Your task to perform on an android device: uninstall "Duolingo: language lessons" Image 0: 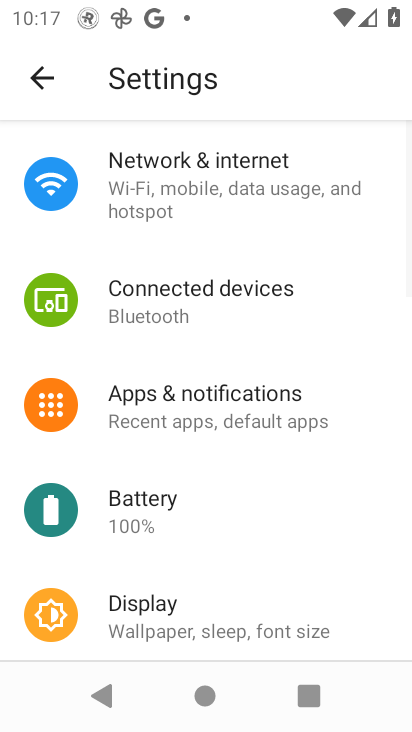
Step 0: click (38, 74)
Your task to perform on an android device: uninstall "Duolingo: language lessons" Image 1: 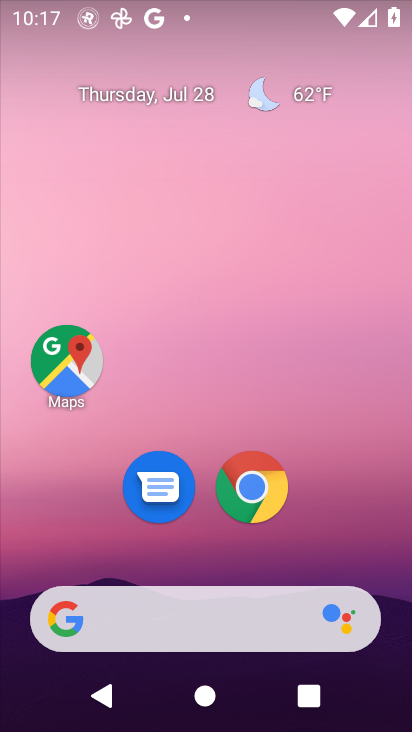
Step 1: click (182, 211)
Your task to perform on an android device: uninstall "Duolingo: language lessons" Image 2: 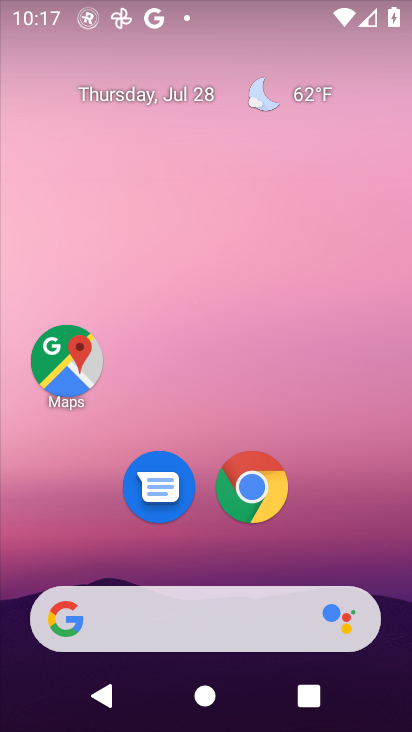
Step 2: drag from (252, 509) to (252, 227)
Your task to perform on an android device: uninstall "Duolingo: language lessons" Image 3: 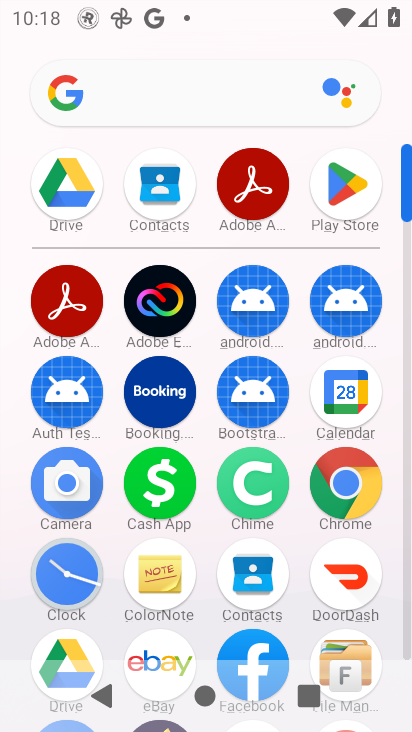
Step 3: click (343, 197)
Your task to perform on an android device: uninstall "Duolingo: language lessons" Image 4: 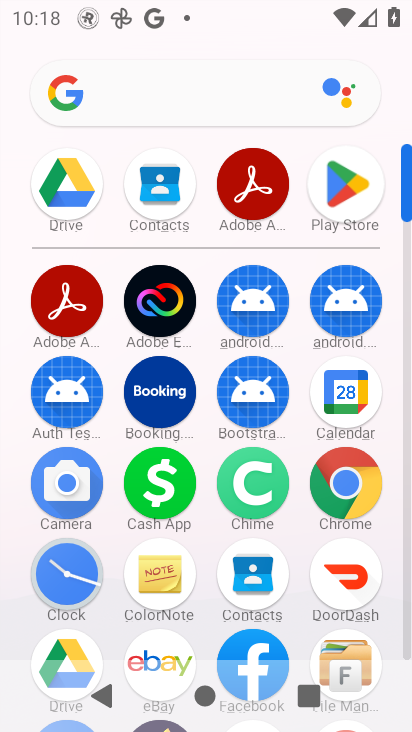
Step 4: click (344, 196)
Your task to perform on an android device: uninstall "Duolingo: language lessons" Image 5: 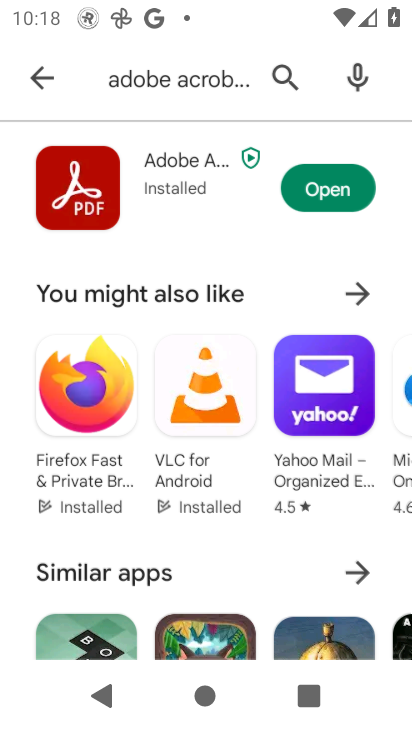
Step 5: click (345, 195)
Your task to perform on an android device: uninstall "Duolingo: language lessons" Image 6: 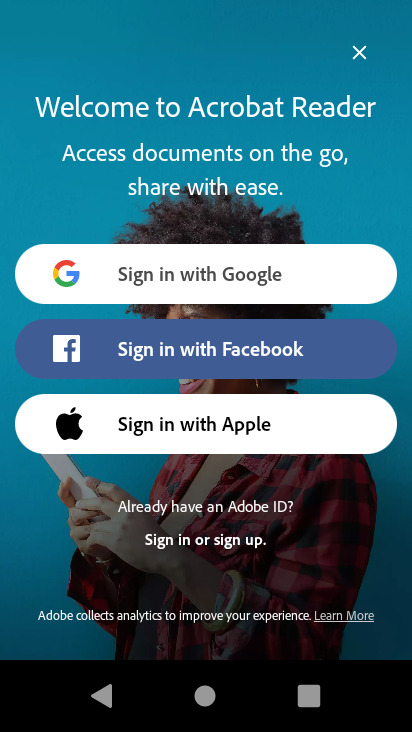
Step 6: press back button
Your task to perform on an android device: uninstall "Duolingo: language lessons" Image 7: 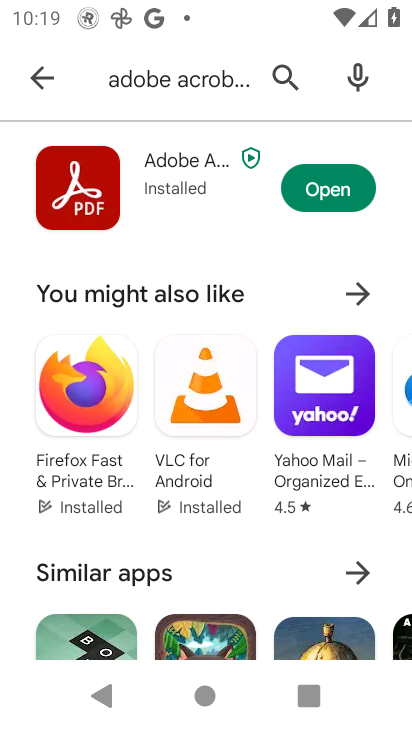
Step 7: click (48, 68)
Your task to perform on an android device: uninstall "Duolingo: language lessons" Image 8: 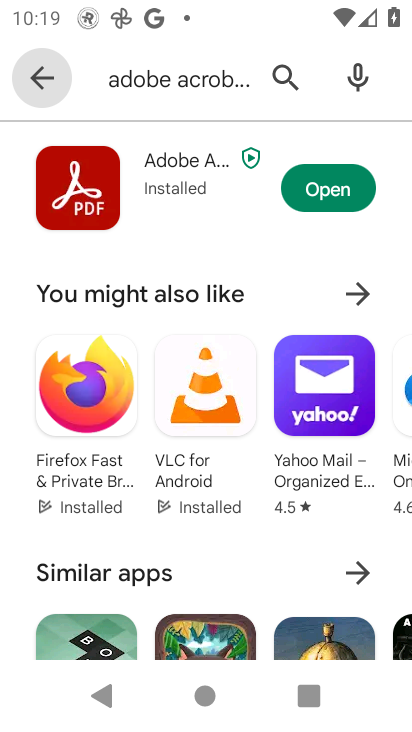
Step 8: click (40, 76)
Your task to perform on an android device: uninstall "Duolingo: language lessons" Image 9: 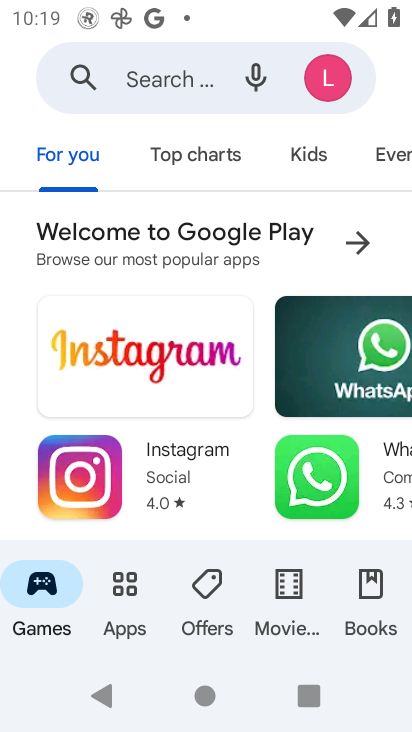
Step 9: click (134, 87)
Your task to perform on an android device: uninstall "Duolingo: language lessons" Image 10: 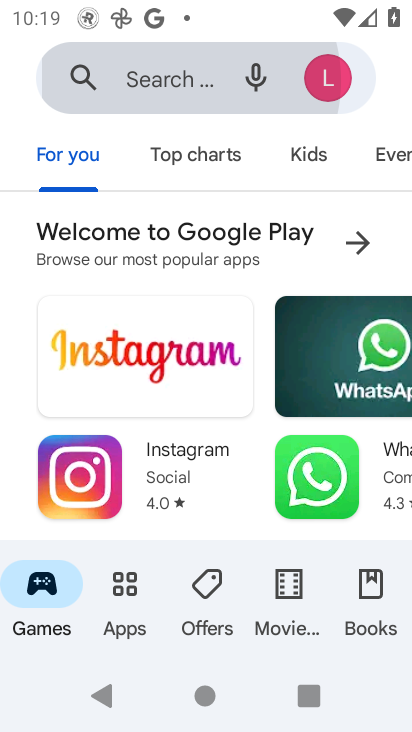
Step 10: click (134, 87)
Your task to perform on an android device: uninstall "Duolingo: language lessons" Image 11: 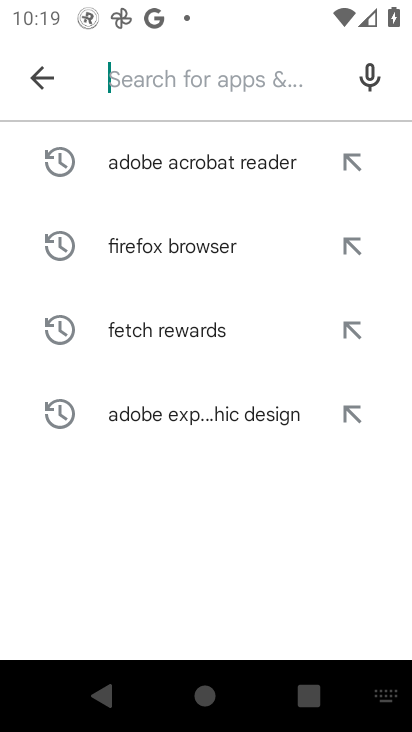
Step 11: type "Duolingo : language lessons"
Your task to perform on an android device: uninstall "Duolingo: language lessons" Image 12: 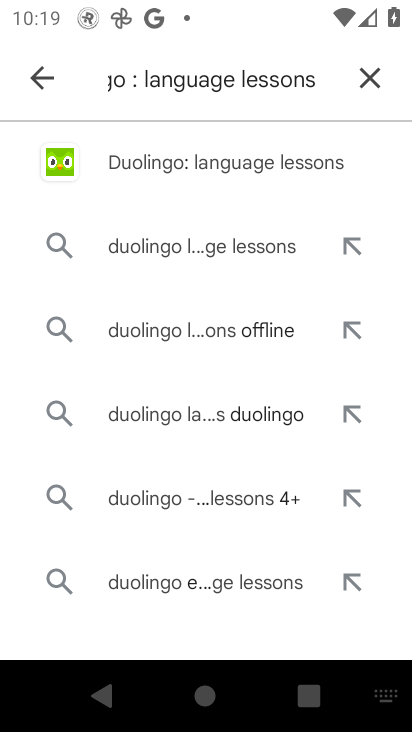
Step 12: click (258, 166)
Your task to perform on an android device: uninstall "Duolingo: language lessons" Image 13: 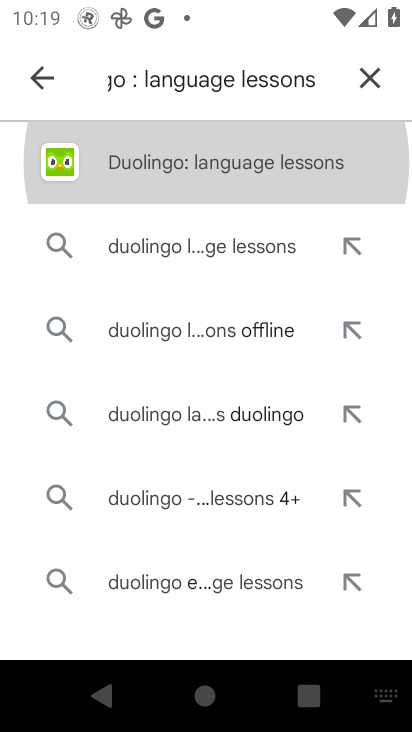
Step 13: click (258, 167)
Your task to perform on an android device: uninstall "Duolingo: language lessons" Image 14: 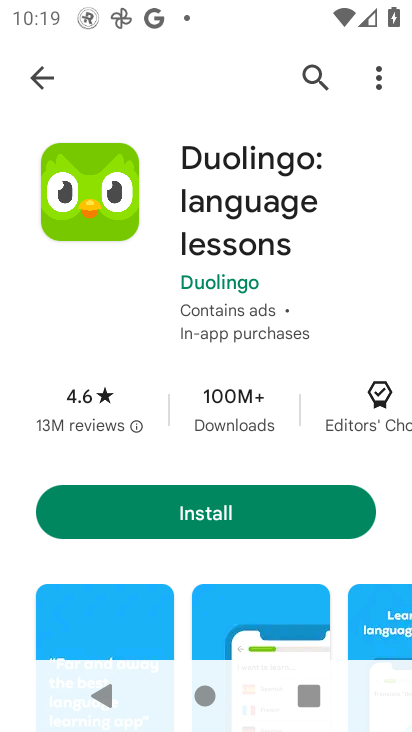
Step 14: click (213, 522)
Your task to perform on an android device: uninstall "Duolingo: language lessons" Image 15: 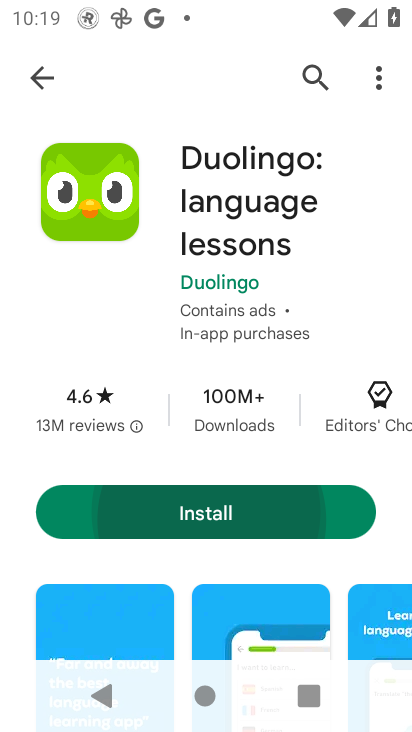
Step 15: click (216, 522)
Your task to perform on an android device: uninstall "Duolingo: language lessons" Image 16: 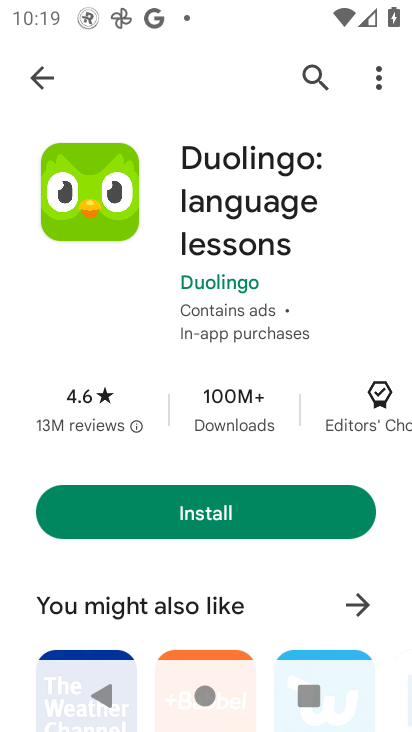
Step 16: task complete